Your task to perform on an android device: Open Google Image 0: 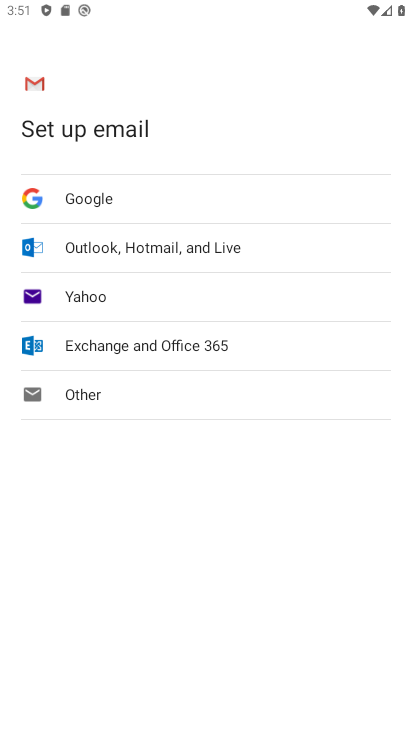
Step 0: press home button
Your task to perform on an android device: Open Google Image 1: 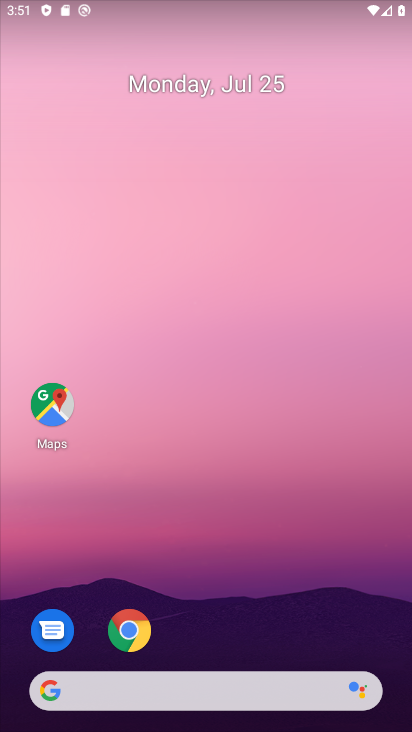
Step 1: drag from (209, 656) to (280, 77)
Your task to perform on an android device: Open Google Image 2: 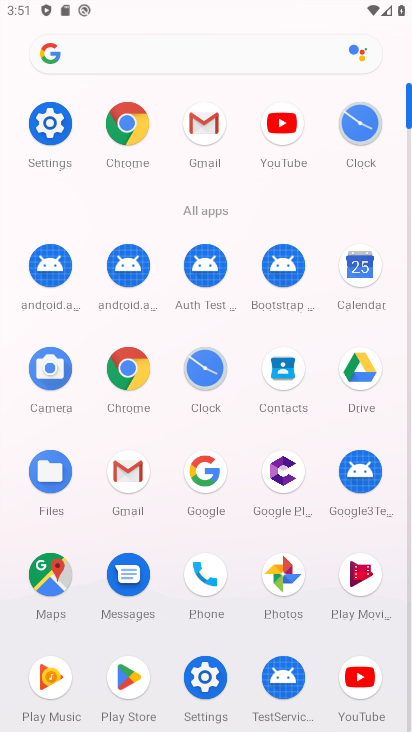
Step 2: click (202, 473)
Your task to perform on an android device: Open Google Image 3: 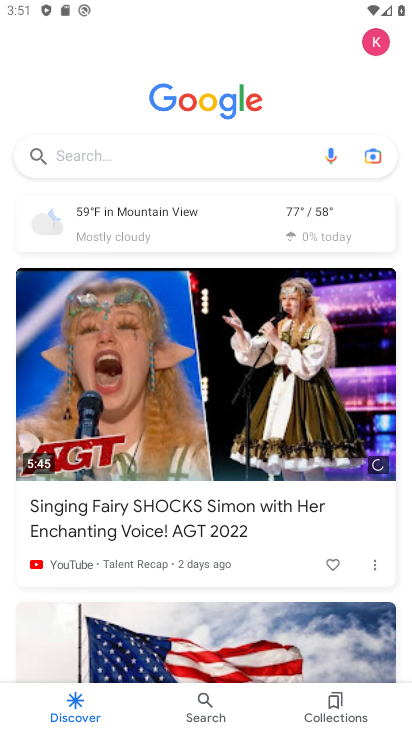
Step 3: task complete